Your task to perform on an android device: change your default location settings in chrome Image 0: 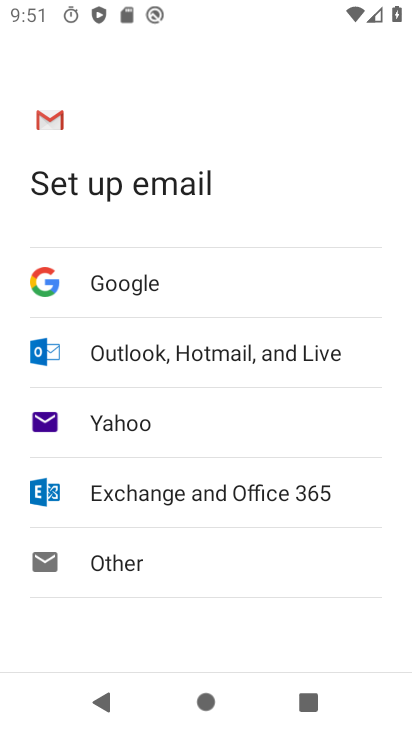
Step 0: press home button
Your task to perform on an android device: change your default location settings in chrome Image 1: 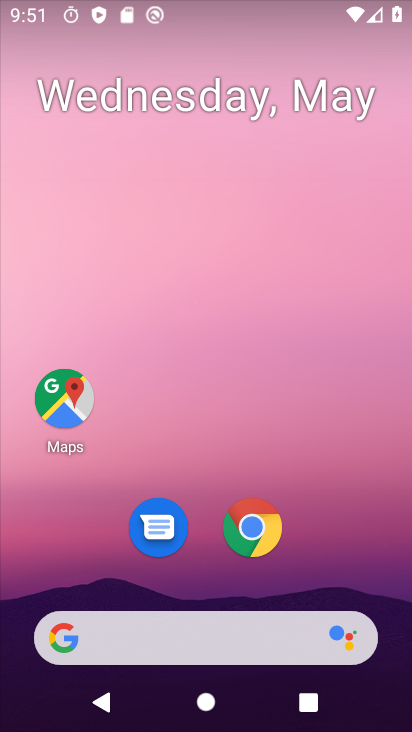
Step 1: click (260, 538)
Your task to perform on an android device: change your default location settings in chrome Image 2: 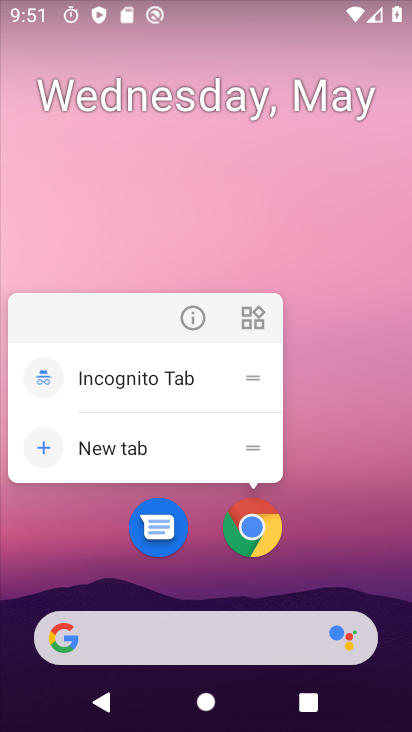
Step 2: click (260, 538)
Your task to perform on an android device: change your default location settings in chrome Image 3: 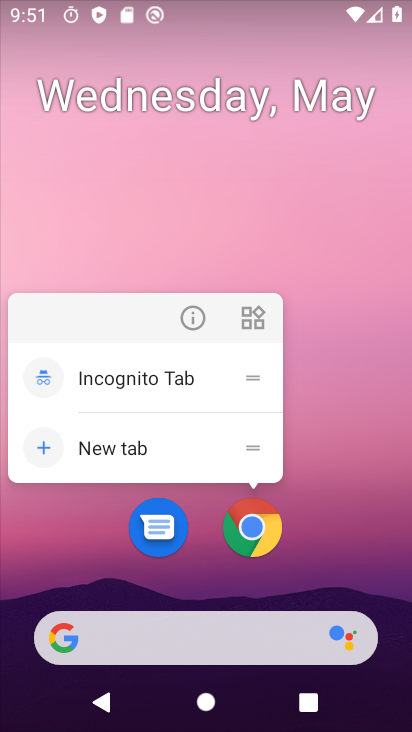
Step 3: click (261, 531)
Your task to perform on an android device: change your default location settings in chrome Image 4: 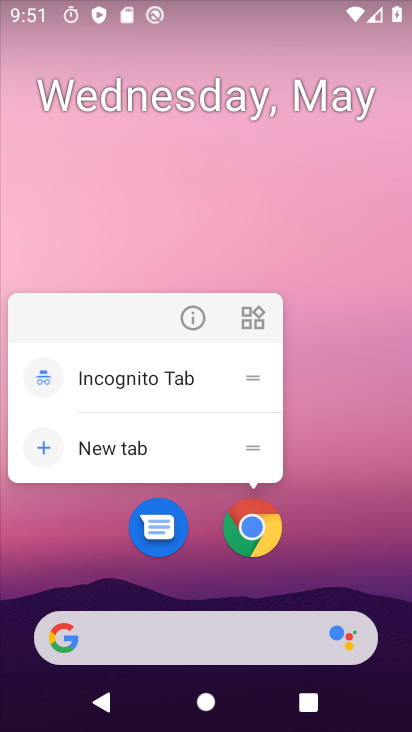
Step 4: click (261, 531)
Your task to perform on an android device: change your default location settings in chrome Image 5: 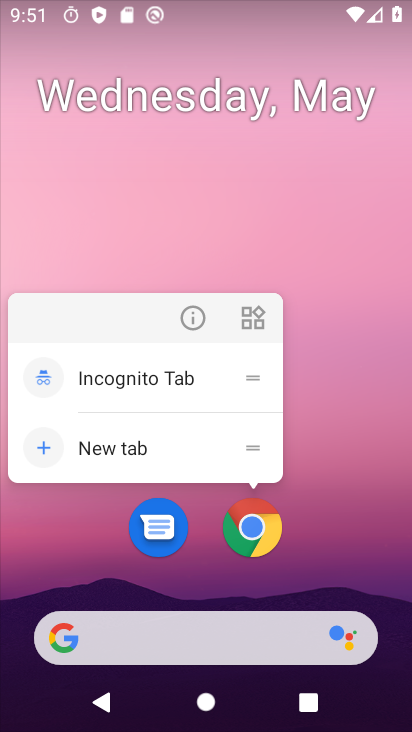
Step 5: click (355, 550)
Your task to perform on an android device: change your default location settings in chrome Image 6: 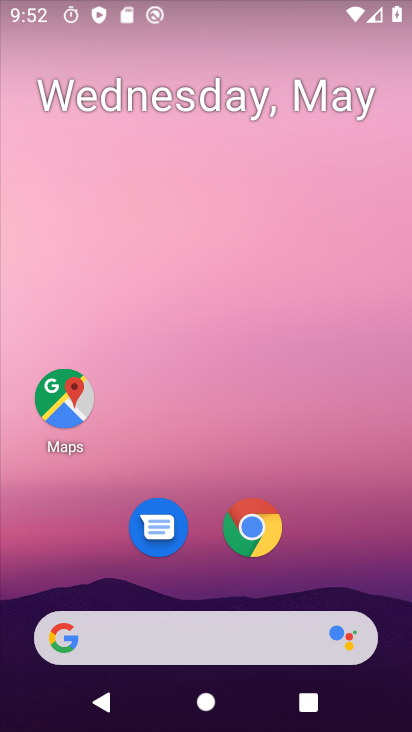
Step 6: drag from (328, 532) to (253, 62)
Your task to perform on an android device: change your default location settings in chrome Image 7: 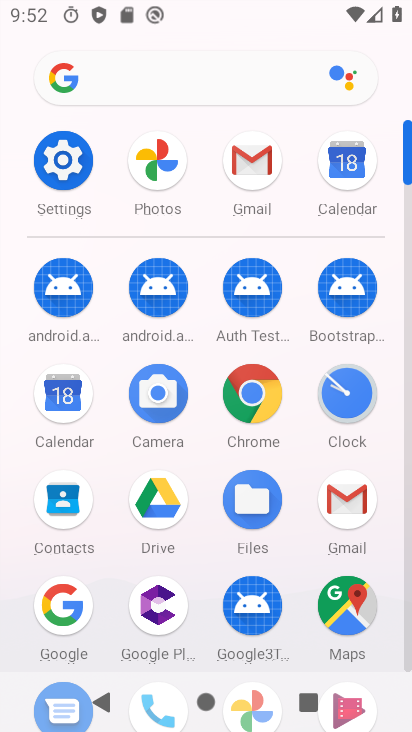
Step 7: drag from (180, 263) to (184, 29)
Your task to perform on an android device: change your default location settings in chrome Image 8: 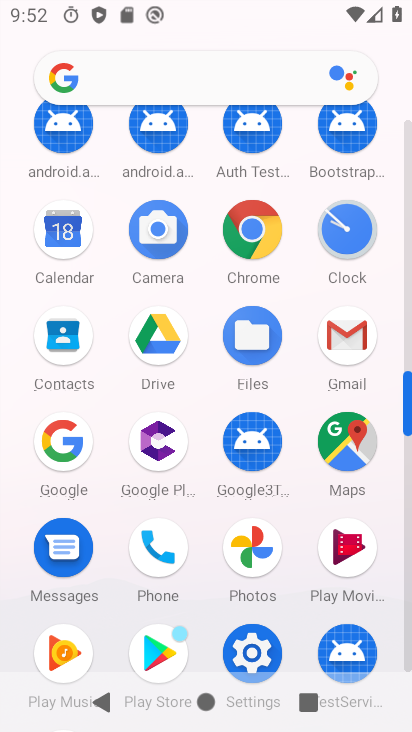
Step 8: click (247, 640)
Your task to perform on an android device: change your default location settings in chrome Image 9: 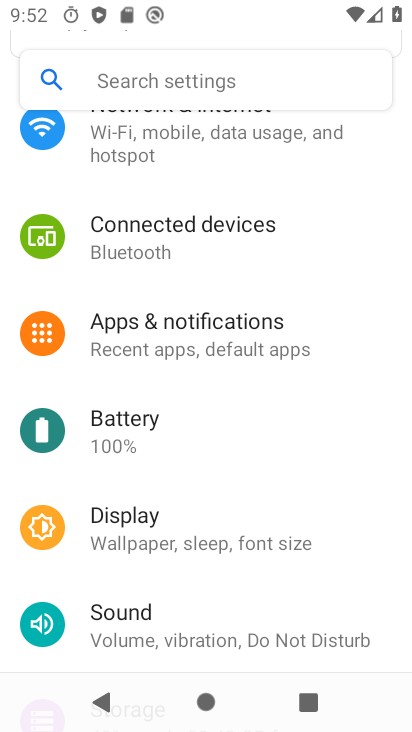
Step 9: press home button
Your task to perform on an android device: change your default location settings in chrome Image 10: 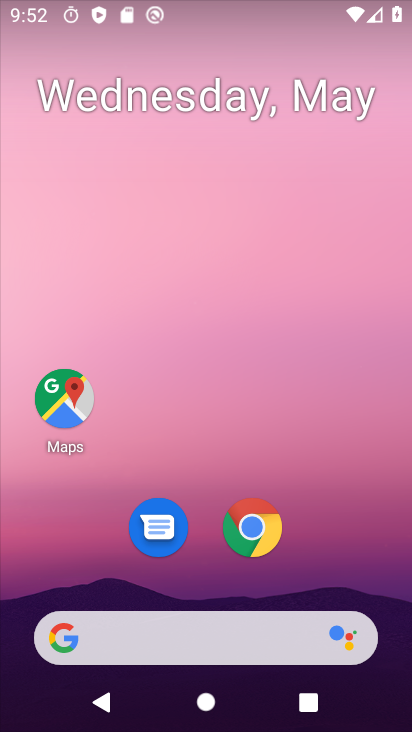
Step 10: click (258, 532)
Your task to perform on an android device: change your default location settings in chrome Image 11: 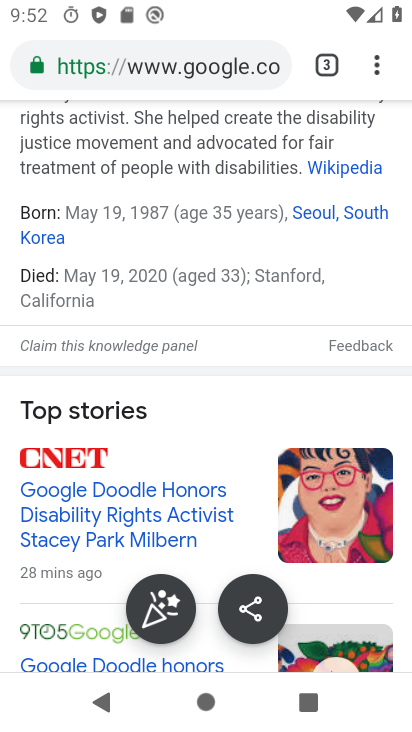
Step 11: drag from (375, 62) to (191, 588)
Your task to perform on an android device: change your default location settings in chrome Image 12: 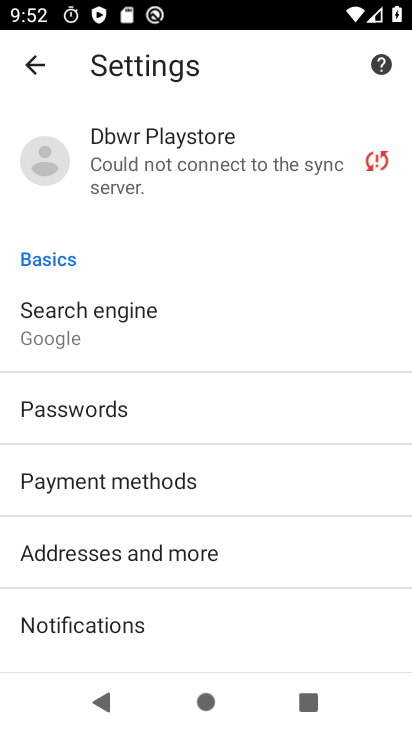
Step 12: drag from (277, 610) to (216, 130)
Your task to perform on an android device: change your default location settings in chrome Image 13: 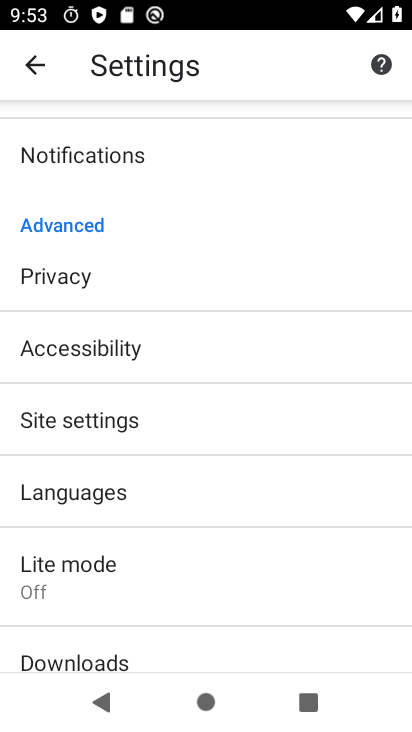
Step 13: drag from (199, 356) to (118, 726)
Your task to perform on an android device: change your default location settings in chrome Image 14: 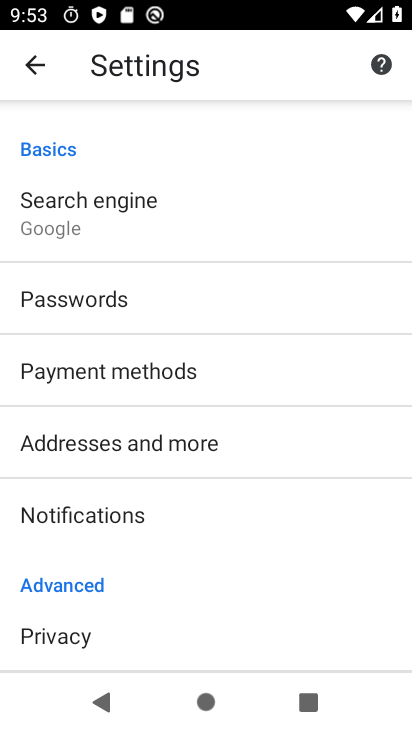
Step 14: drag from (177, 281) to (88, 713)
Your task to perform on an android device: change your default location settings in chrome Image 15: 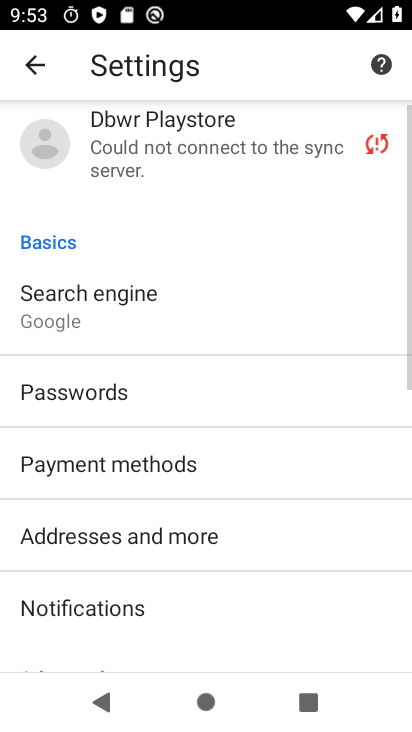
Step 15: drag from (253, 160) to (172, 255)
Your task to perform on an android device: change your default location settings in chrome Image 16: 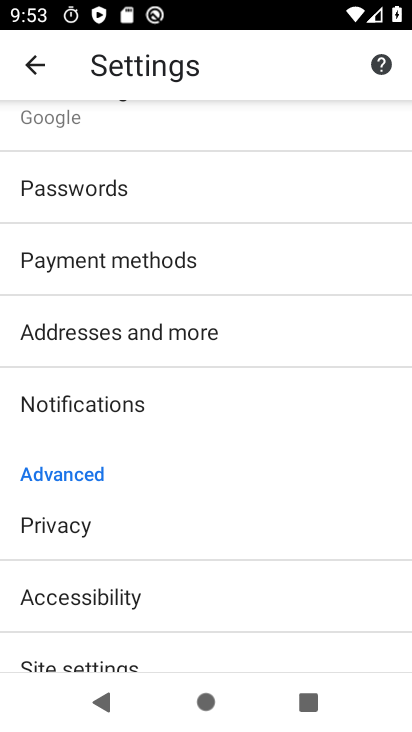
Step 16: drag from (76, 519) to (86, 165)
Your task to perform on an android device: change your default location settings in chrome Image 17: 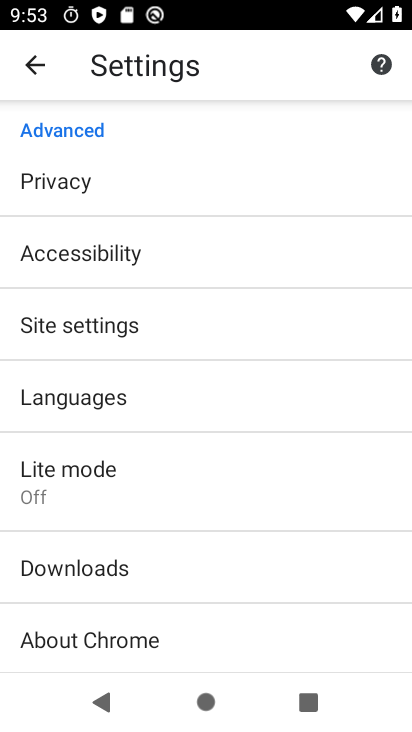
Step 17: click (27, 338)
Your task to perform on an android device: change your default location settings in chrome Image 18: 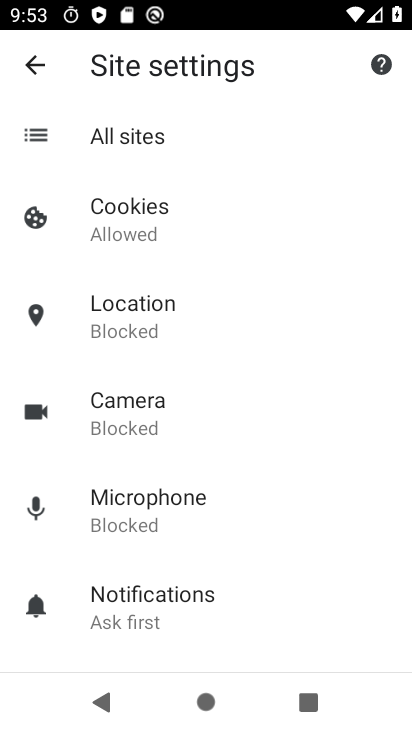
Step 18: click (107, 314)
Your task to perform on an android device: change your default location settings in chrome Image 19: 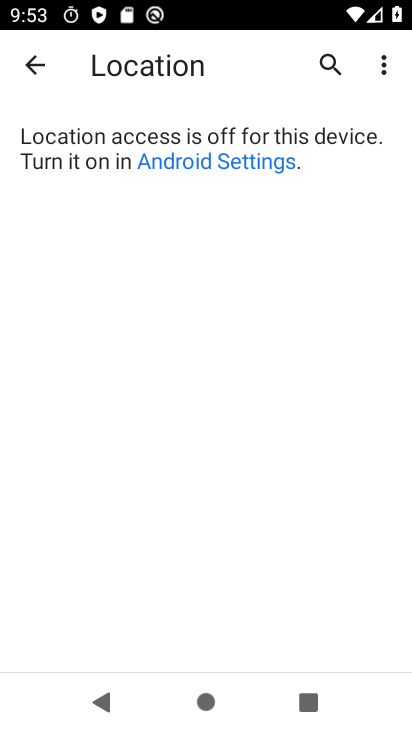
Step 19: click (28, 70)
Your task to perform on an android device: change your default location settings in chrome Image 20: 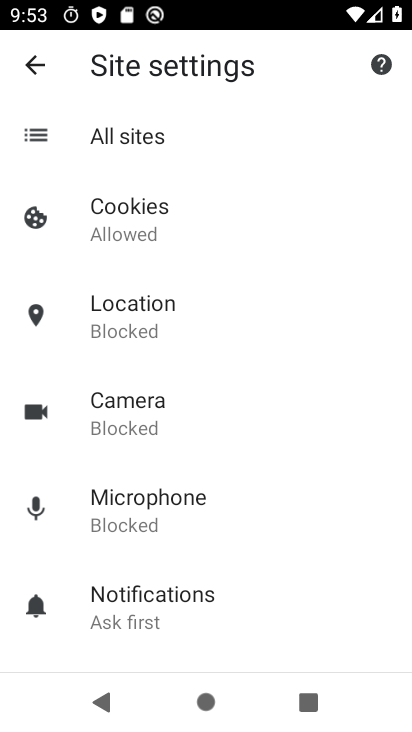
Step 20: click (93, 300)
Your task to perform on an android device: change your default location settings in chrome Image 21: 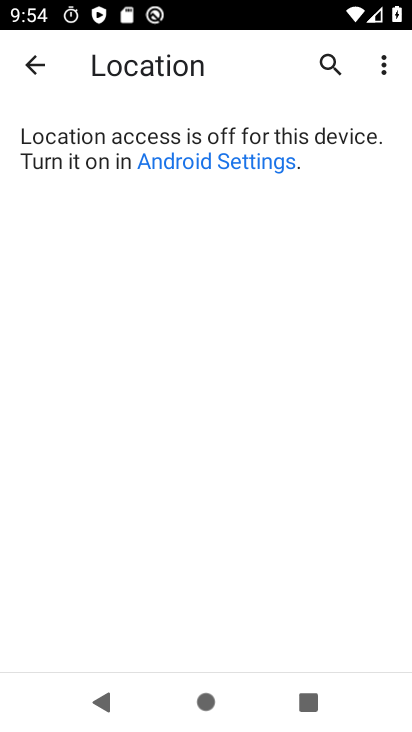
Step 21: task complete